Your task to perform on an android device: Set an alarm for 12pm Image 0: 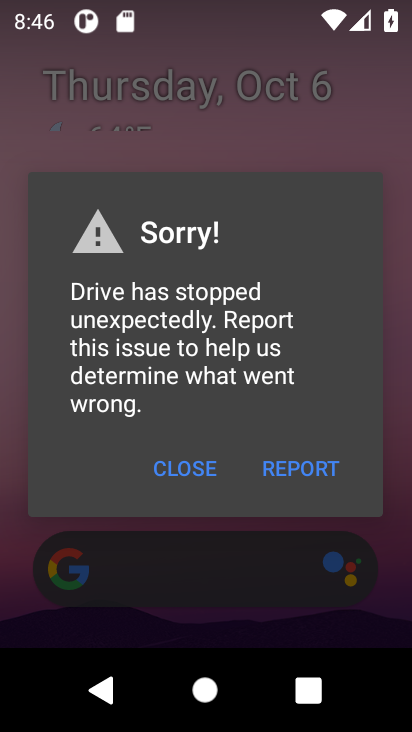
Step 0: click (210, 462)
Your task to perform on an android device: Set an alarm for 12pm Image 1: 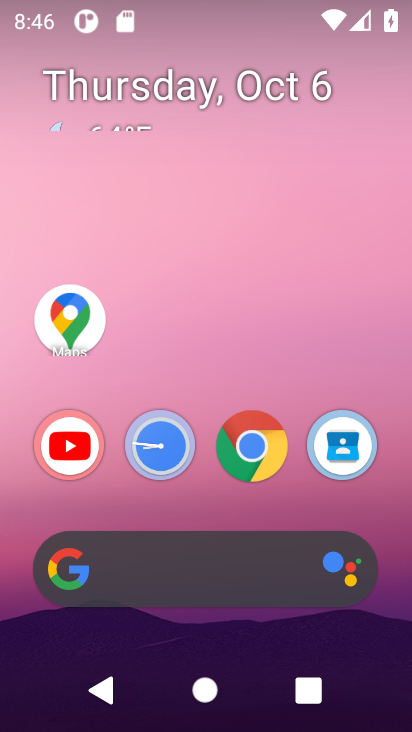
Step 1: click (59, 468)
Your task to perform on an android device: Set an alarm for 12pm Image 2: 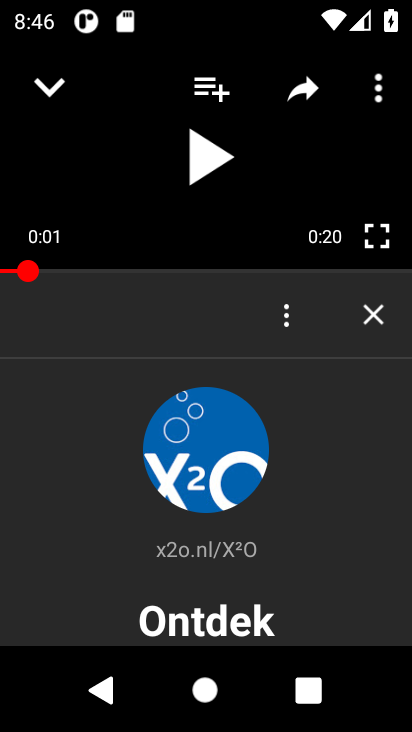
Step 2: click (55, 99)
Your task to perform on an android device: Set an alarm for 12pm Image 3: 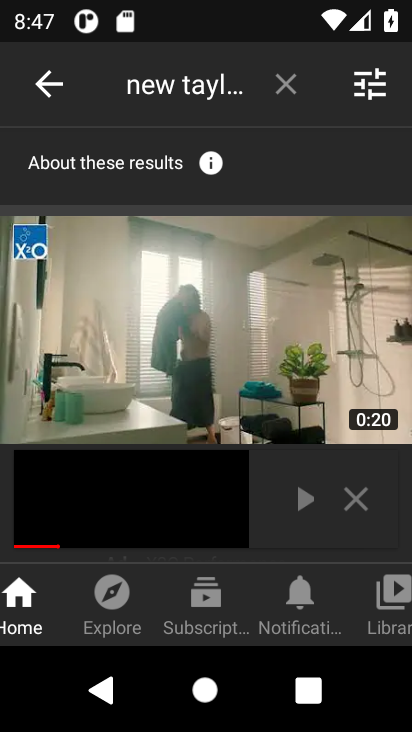
Step 3: click (281, 76)
Your task to perform on an android device: Set an alarm for 12pm Image 4: 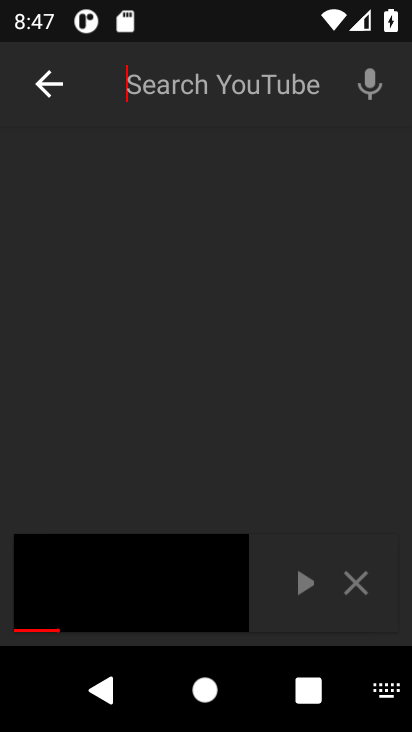
Step 4: press home button
Your task to perform on an android device: Set an alarm for 12pm Image 5: 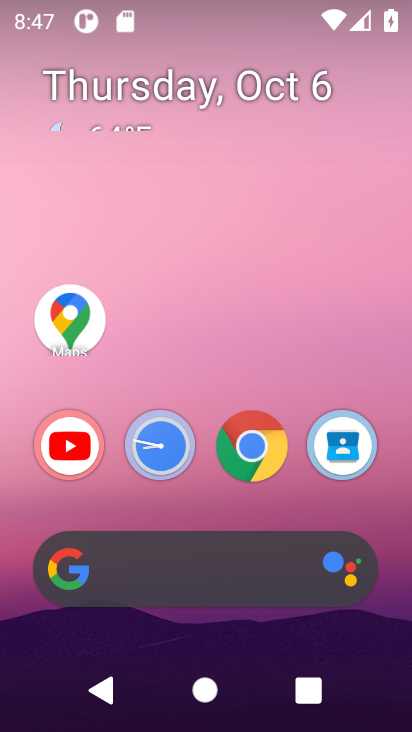
Step 5: click (154, 442)
Your task to perform on an android device: Set an alarm for 12pm Image 6: 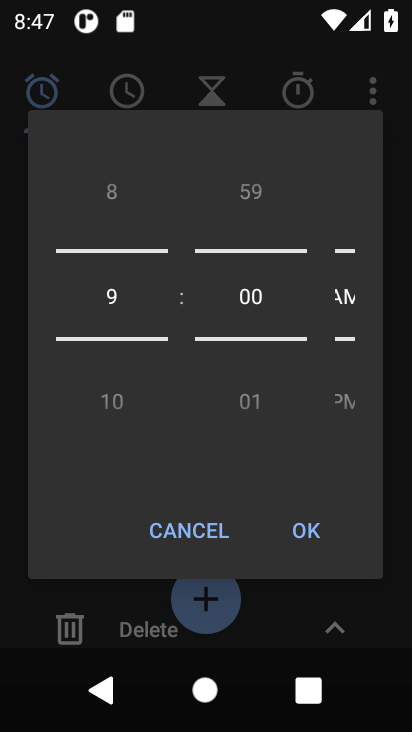
Step 6: click (120, 404)
Your task to perform on an android device: Set an alarm for 12pm Image 7: 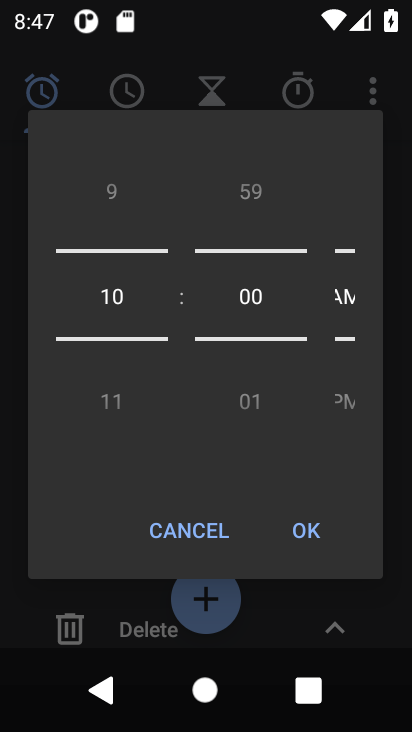
Step 7: click (120, 404)
Your task to perform on an android device: Set an alarm for 12pm Image 8: 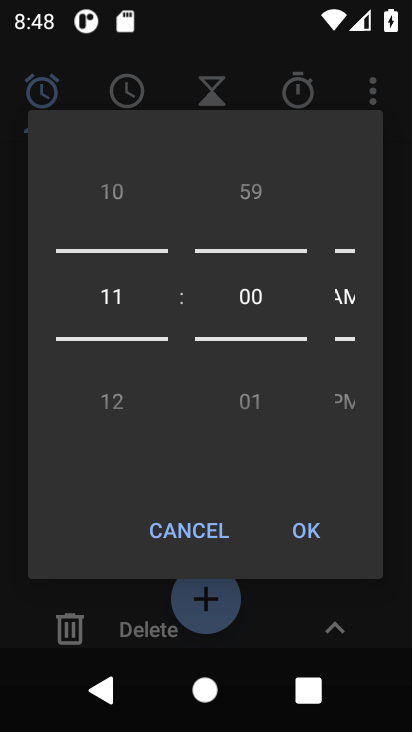
Step 8: click (120, 404)
Your task to perform on an android device: Set an alarm for 12pm Image 9: 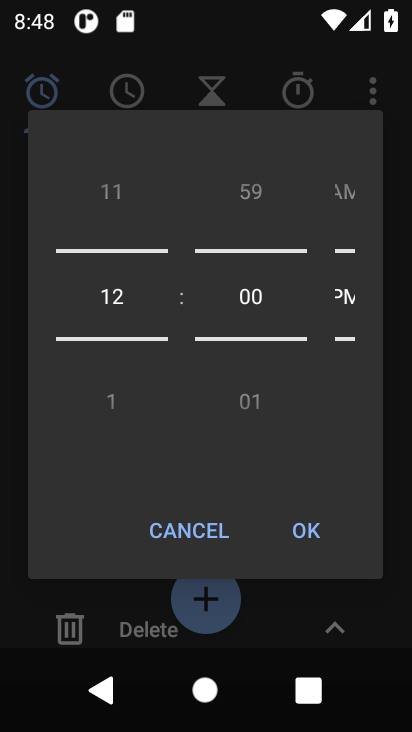
Step 9: click (292, 537)
Your task to perform on an android device: Set an alarm for 12pm Image 10: 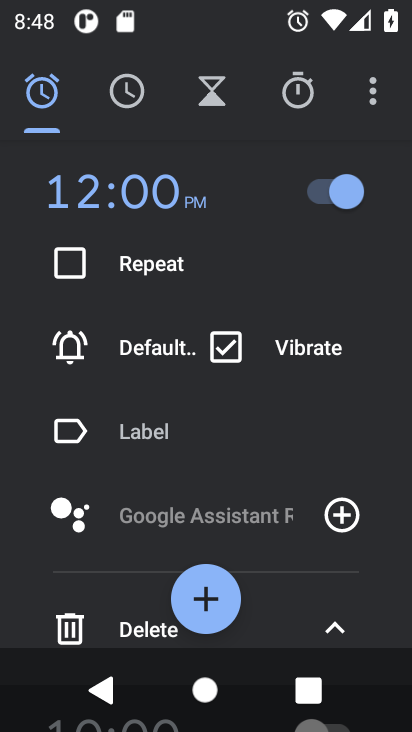
Step 10: task complete